Your task to perform on an android device: turn off sleep mode Image 0: 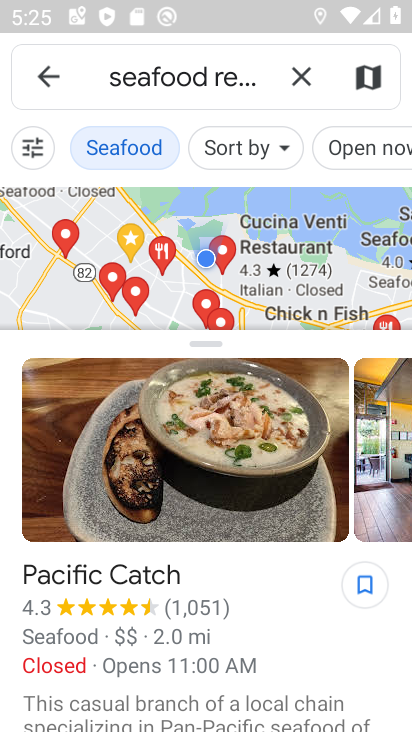
Step 0: press back button
Your task to perform on an android device: turn off sleep mode Image 1: 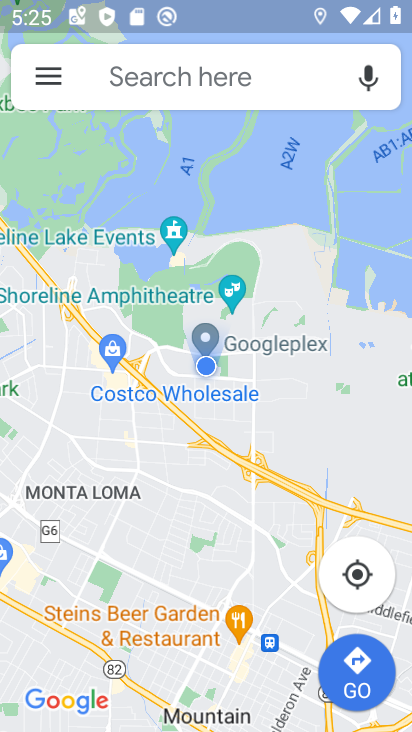
Step 1: task complete